Your task to perform on an android device: What's the weather today? Image 0: 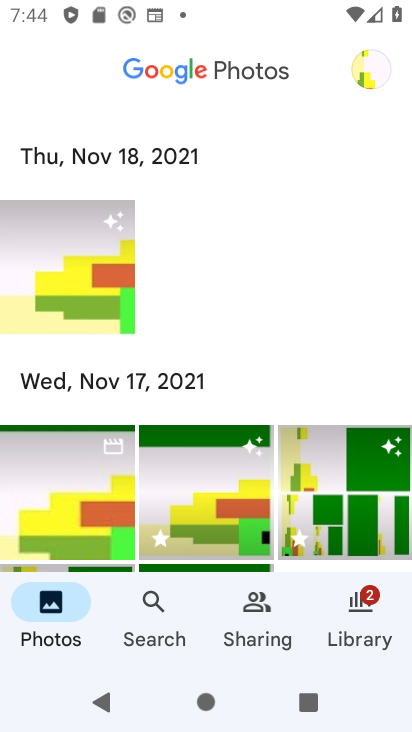
Step 0: press home button
Your task to perform on an android device: What's the weather today? Image 1: 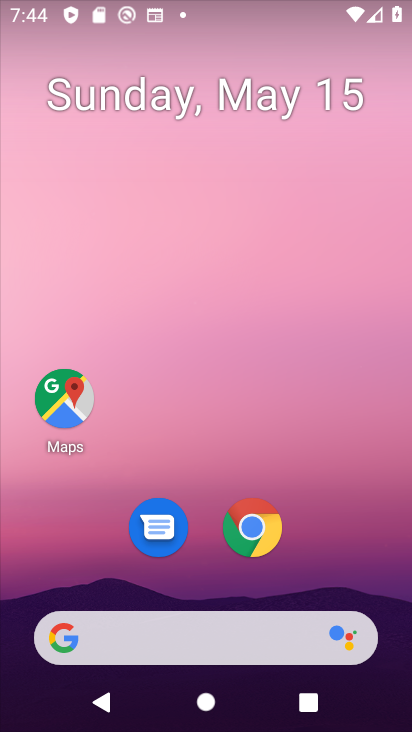
Step 1: click (64, 634)
Your task to perform on an android device: What's the weather today? Image 2: 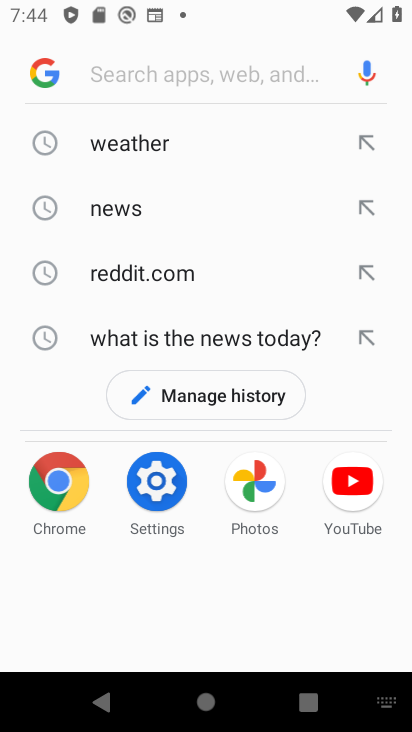
Step 2: click (129, 143)
Your task to perform on an android device: What's the weather today? Image 3: 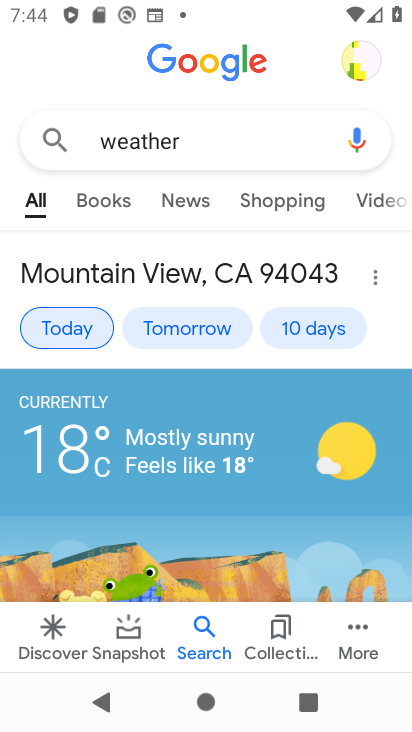
Step 3: task complete